Your task to perform on an android device: set an alarm Image 0: 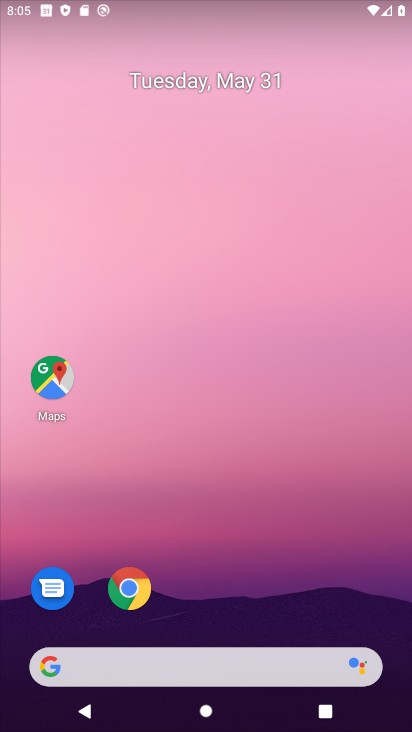
Step 0: drag from (218, 609) to (286, 24)
Your task to perform on an android device: set an alarm Image 1: 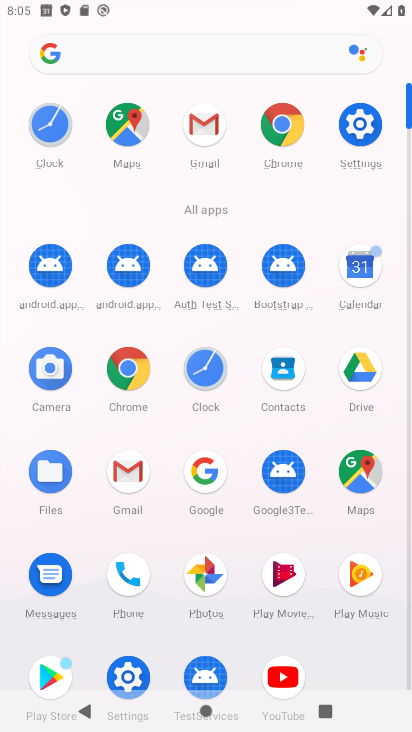
Step 1: click (199, 374)
Your task to perform on an android device: set an alarm Image 2: 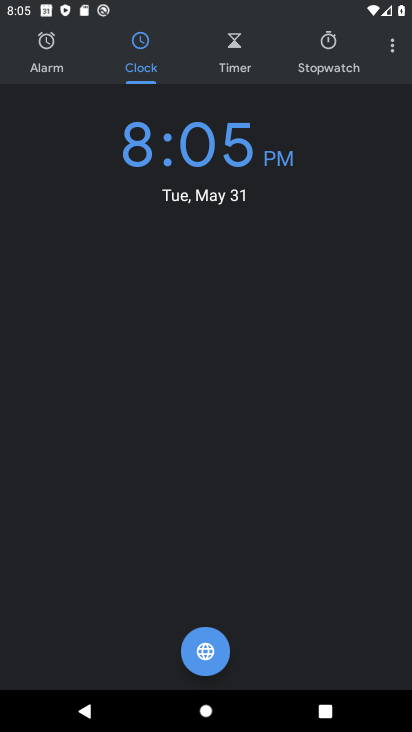
Step 2: click (35, 64)
Your task to perform on an android device: set an alarm Image 3: 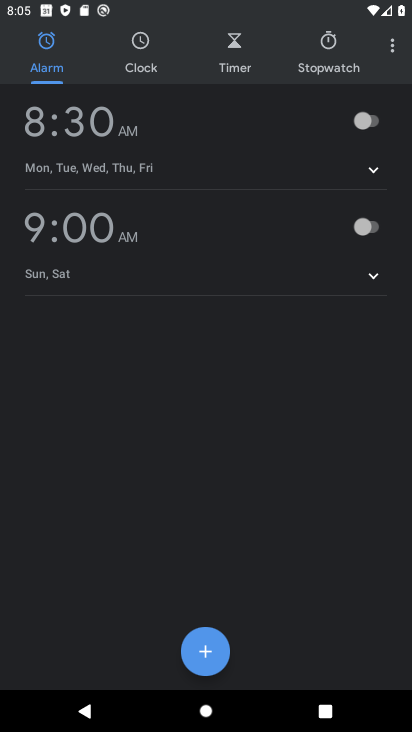
Step 3: click (208, 635)
Your task to perform on an android device: set an alarm Image 4: 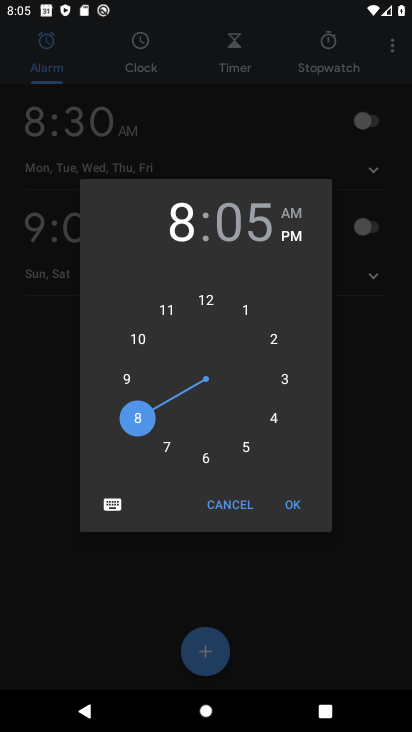
Step 4: click (203, 302)
Your task to perform on an android device: set an alarm Image 5: 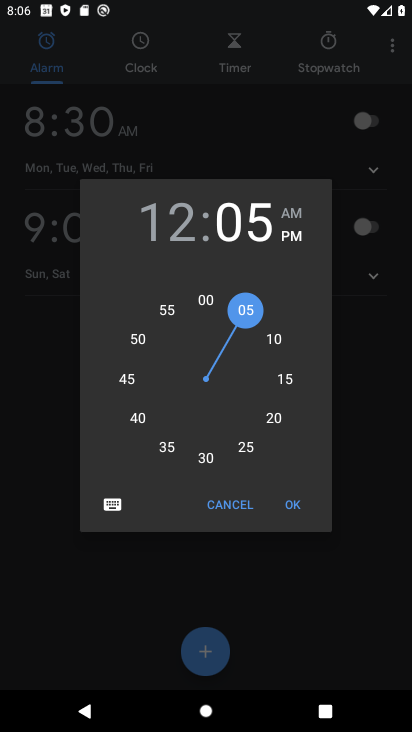
Step 5: click (211, 299)
Your task to perform on an android device: set an alarm Image 6: 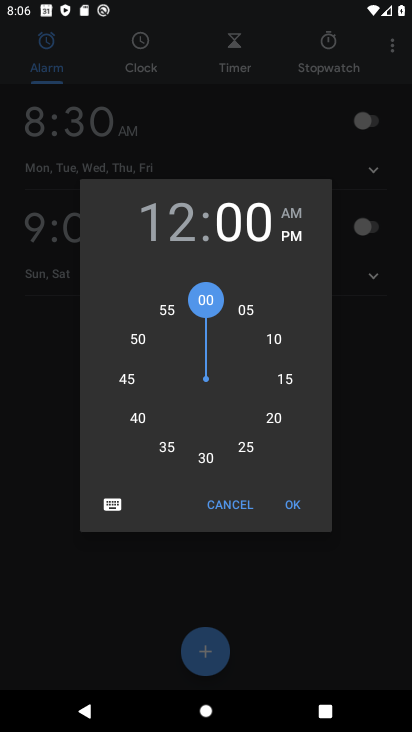
Step 6: click (211, 299)
Your task to perform on an android device: set an alarm Image 7: 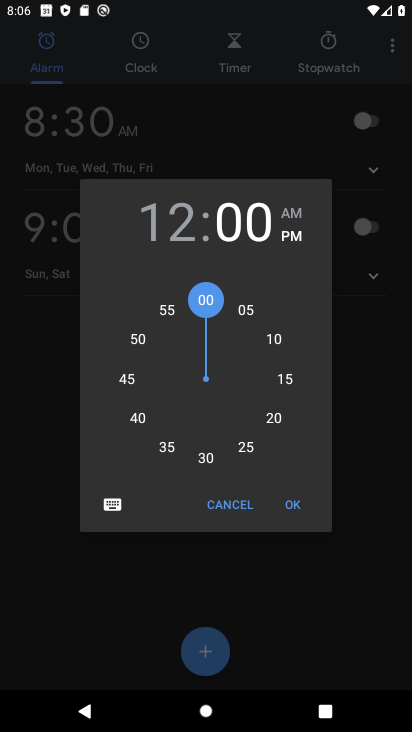
Step 7: click (292, 236)
Your task to perform on an android device: set an alarm Image 8: 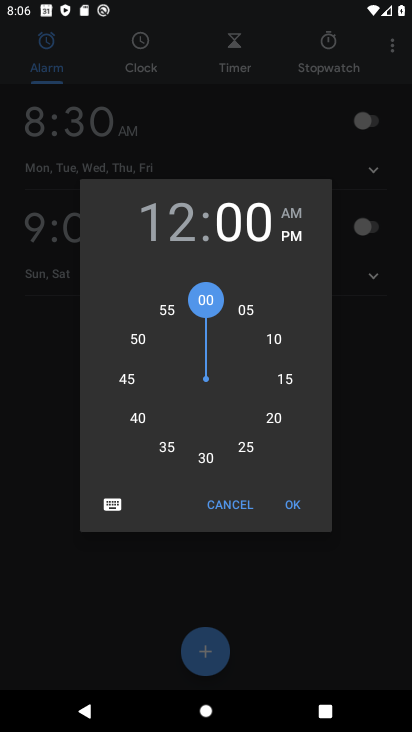
Step 8: click (300, 506)
Your task to perform on an android device: set an alarm Image 9: 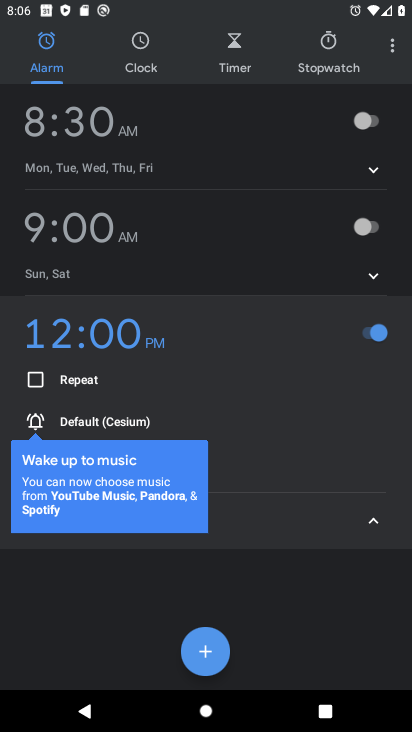
Step 9: task complete